Your task to perform on an android device: Is it going to rain this weekend? Image 0: 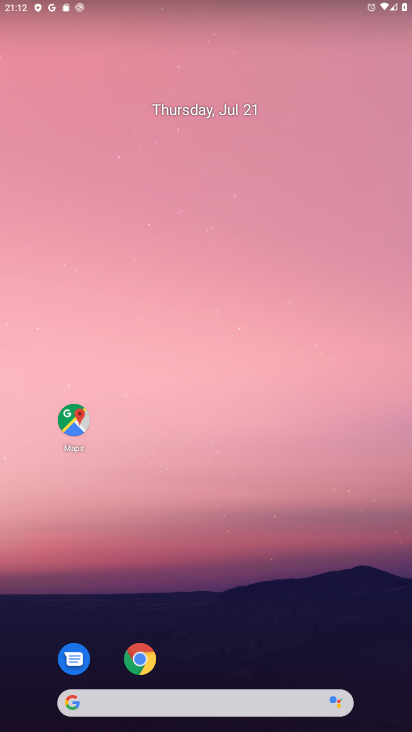
Step 0: click (139, 651)
Your task to perform on an android device: Is it going to rain this weekend? Image 1: 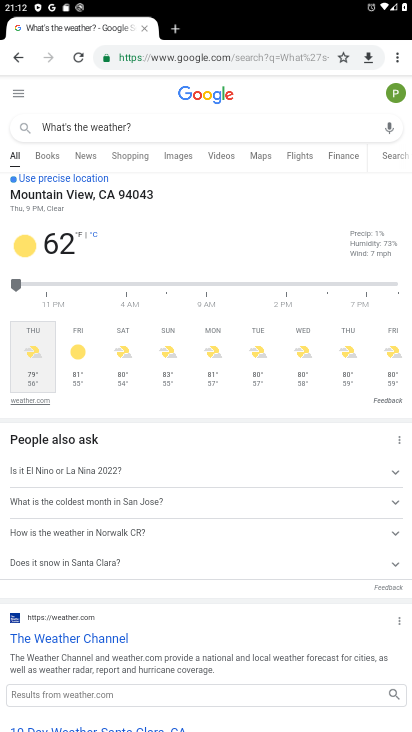
Step 1: click (211, 54)
Your task to perform on an android device: Is it going to rain this weekend? Image 2: 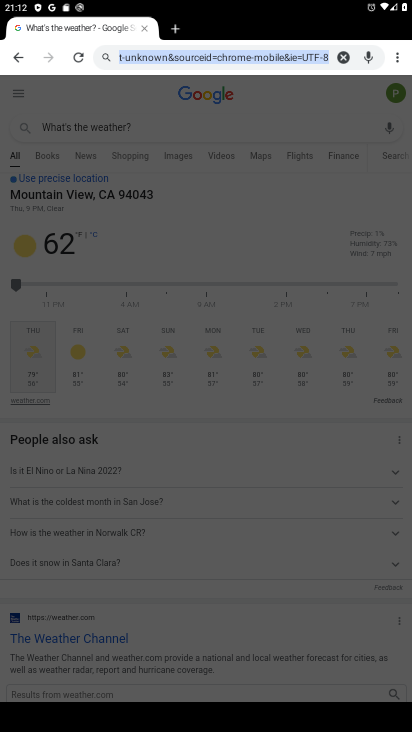
Step 2: type "Is it going to rain this weekend?"
Your task to perform on an android device: Is it going to rain this weekend? Image 3: 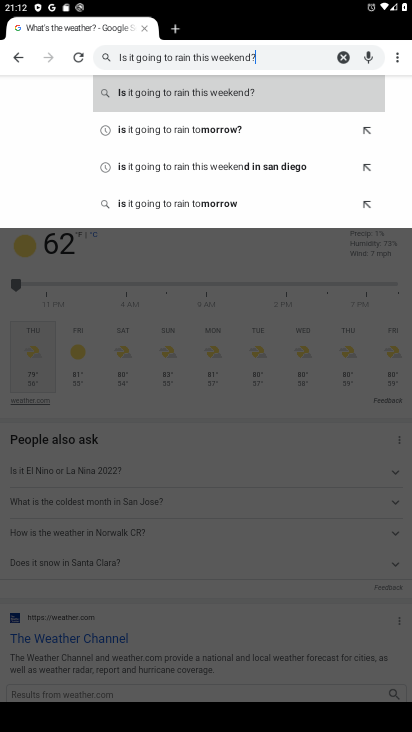
Step 3: type ""
Your task to perform on an android device: Is it going to rain this weekend? Image 4: 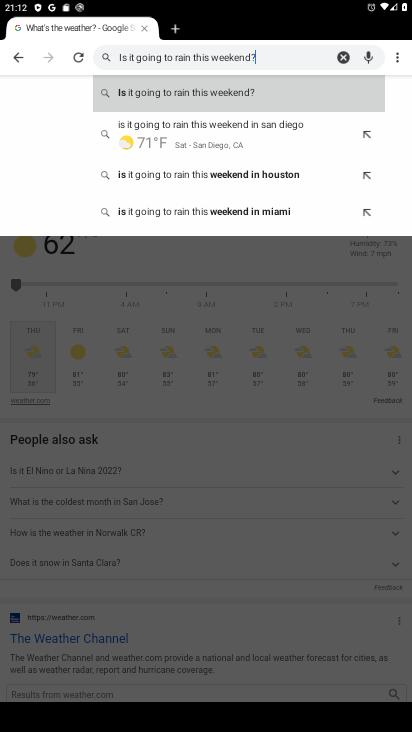
Step 4: click (175, 90)
Your task to perform on an android device: Is it going to rain this weekend? Image 5: 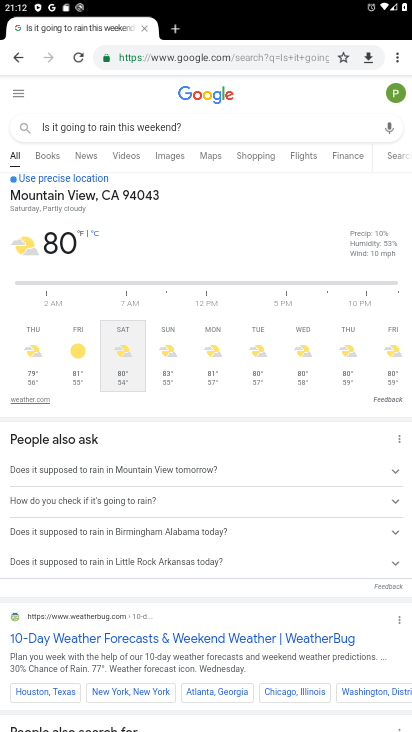
Step 5: task complete